Your task to perform on an android device: toggle notification dots Image 0: 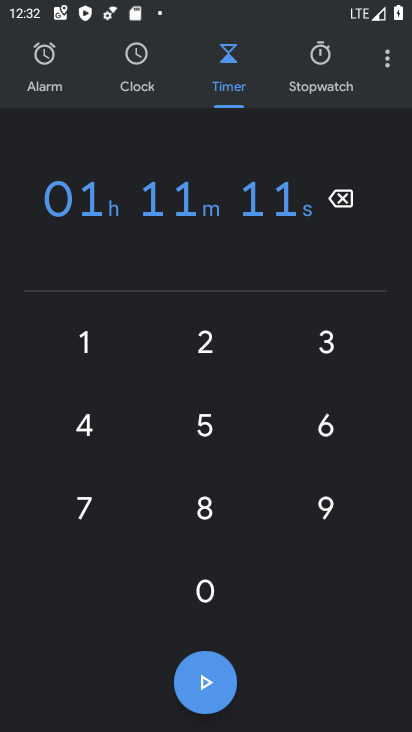
Step 0: press home button
Your task to perform on an android device: toggle notification dots Image 1: 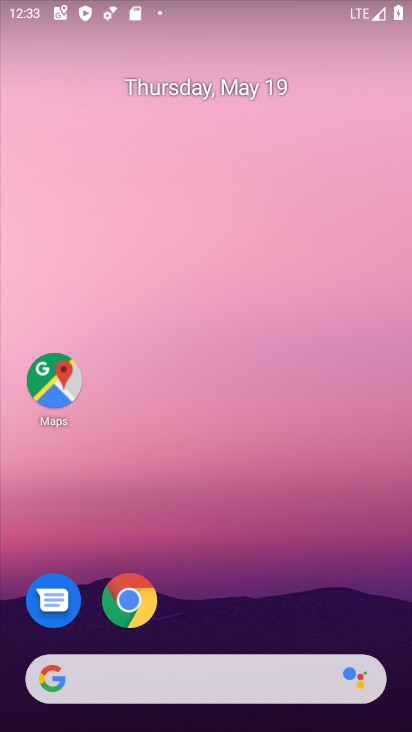
Step 1: drag from (244, 505) to (180, 4)
Your task to perform on an android device: toggle notification dots Image 2: 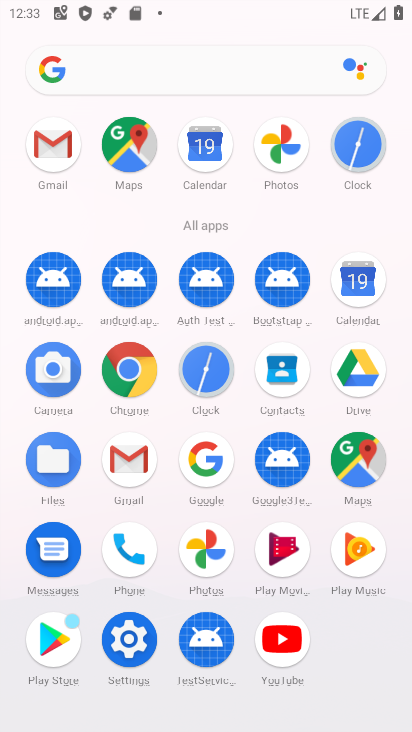
Step 2: click (130, 638)
Your task to perform on an android device: toggle notification dots Image 3: 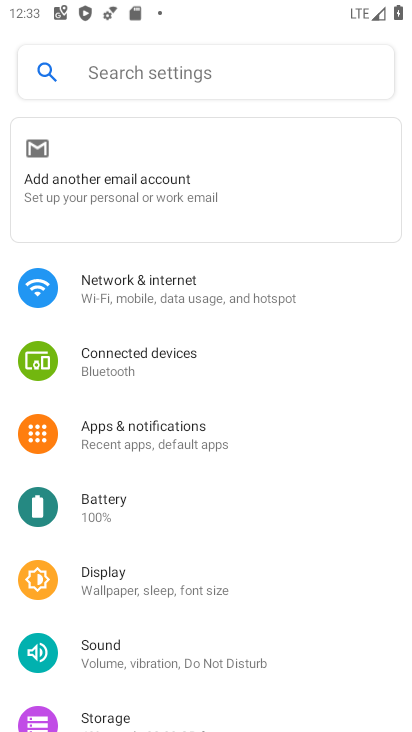
Step 3: click (141, 421)
Your task to perform on an android device: toggle notification dots Image 4: 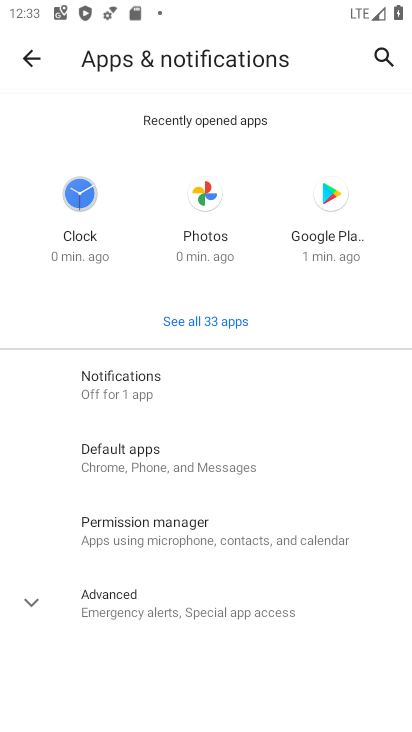
Step 4: click (125, 373)
Your task to perform on an android device: toggle notification dots Image 5: 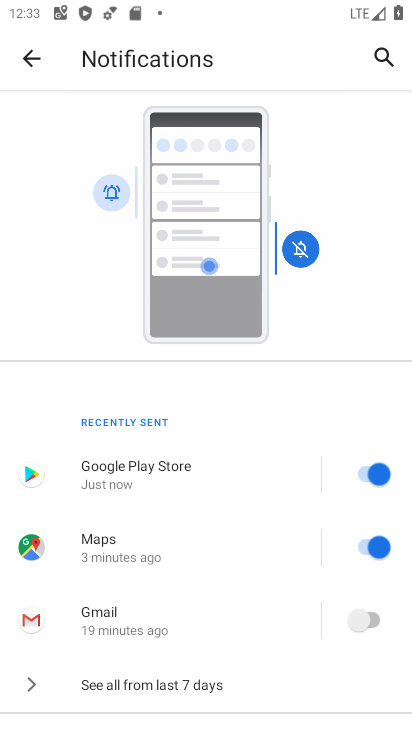
Step 5: drag from (234, 577) to (150, 280)
Your task to perform on an android device: toggle notification dots Image 6: 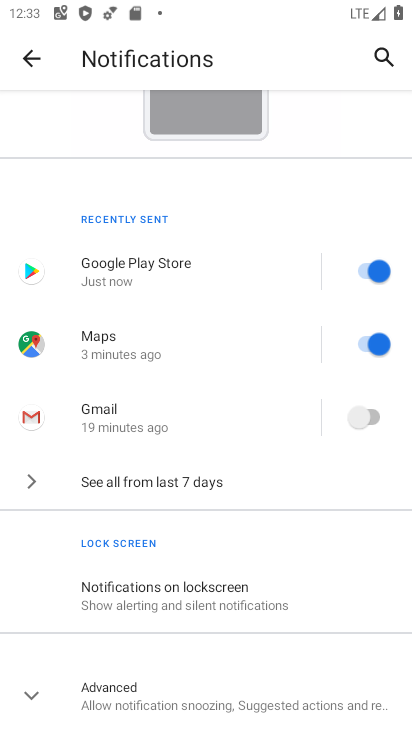
Step 6: drag from (235, 638) to (185, 275)
Your task to perform on an android device: toggle notification dots Image 7: 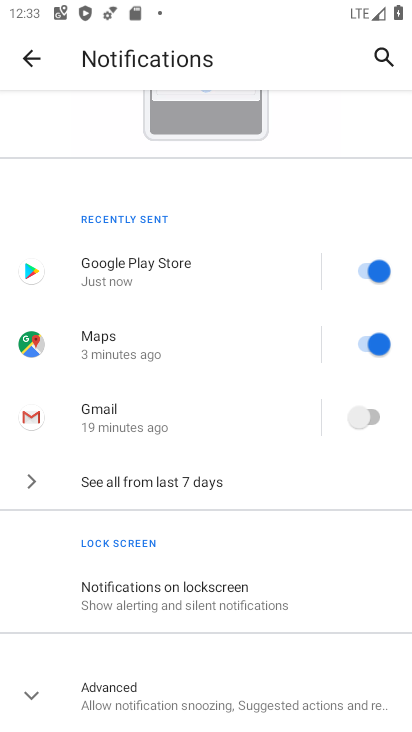
Step 7: click (22, 694)
Your task to perform on an android device: toggle notification dots Image 8: 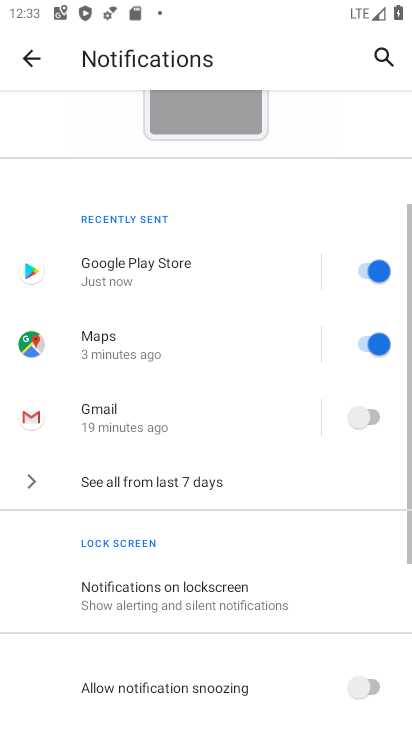
Step 8: drag from (153, 629) to (98, 167)
Your task to perform on an android device: toggle notification dots Image 9: 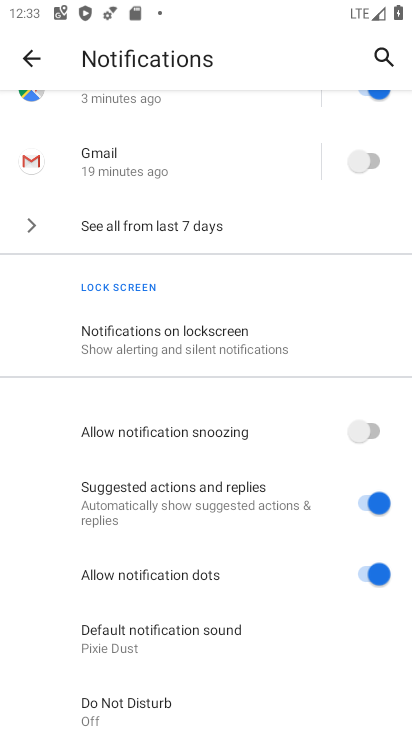
Step 9: click (371, 565)
Your task to perform on an android device: toggle notification dots Image 10: 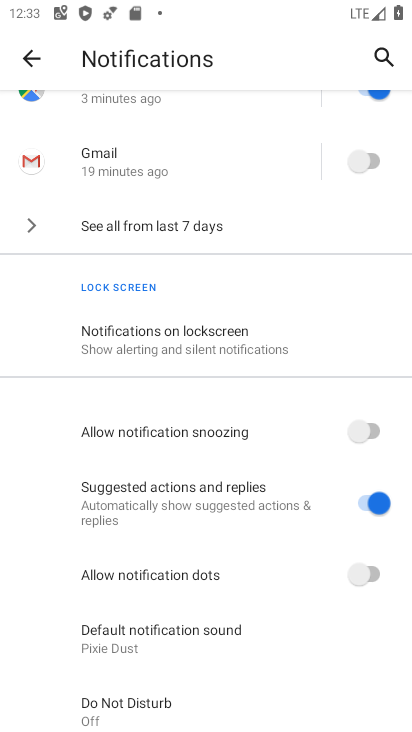
Step 10: task complete